Your task to perform on an android device: toggle notifications settings in the gmail app Image 0: 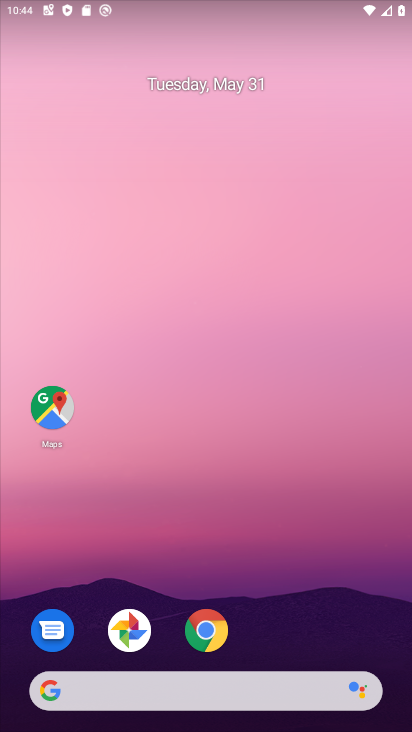
Step 0: drag from (280, 563) to (266, 245)
Your task to perform on an android device: toggle notifications settings in the gmail app Image 1: 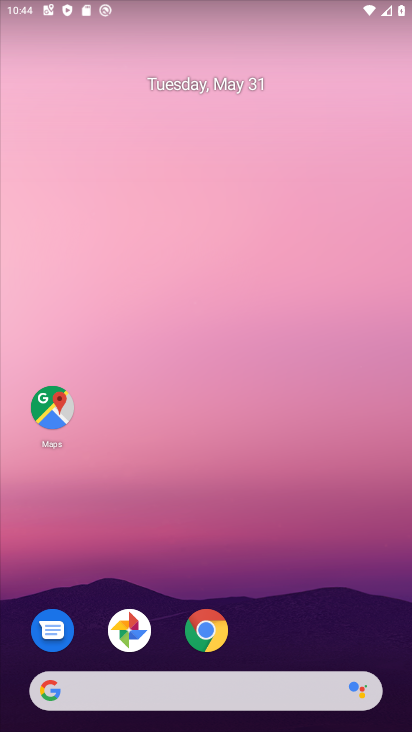
Step 1: drag from (250, 595) to (236, 196)
Your task to perform on an android device: toggle notifications settings in the gmail app Image 2: 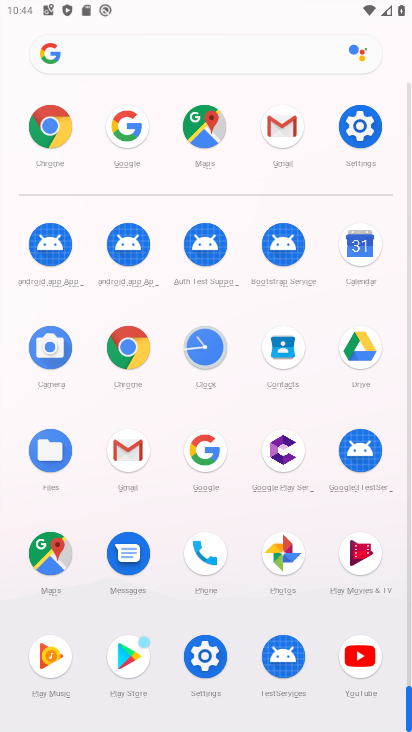
Step 2: click (121, 441)
Your task to perform on an android device: toggle notifications settings in the gmail app Image 3: 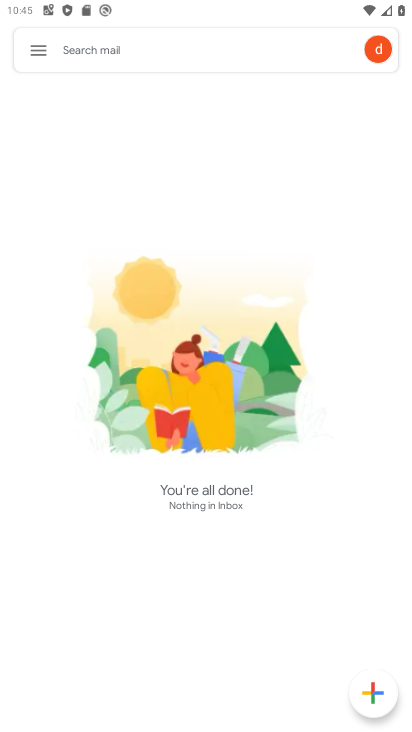
Step 3: click (32, 38)
Your task to perform on an android device: toggle notifications settings in the gmail app Image 4: 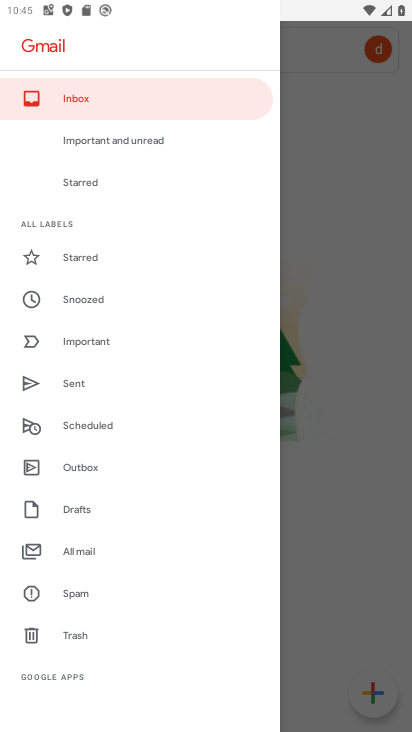
Step 4: drag from (95, 647) to (113, 289)
Your task to perform on an android device: toggle notifications settings in the gmail app Image 5: 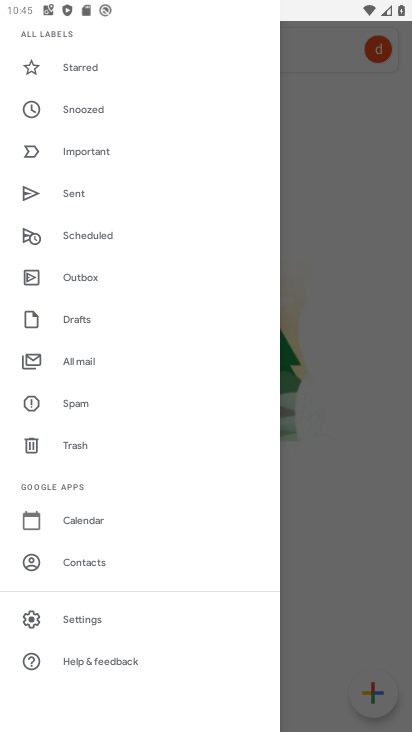
Step 5: click (88, 617)
Your task to perform on an android device: toggle notifications settings in the gmail app Image 6: 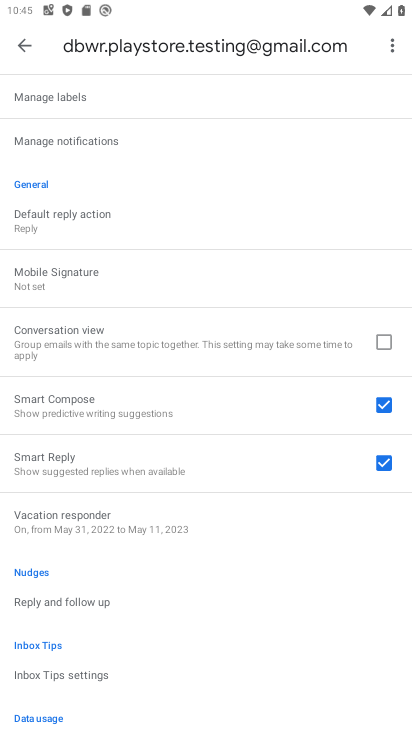
Step 6: drag from (144, 586) to (164, 360)
Your task to perform on an android device: toggle notifications settings in the gmail app Image 7: 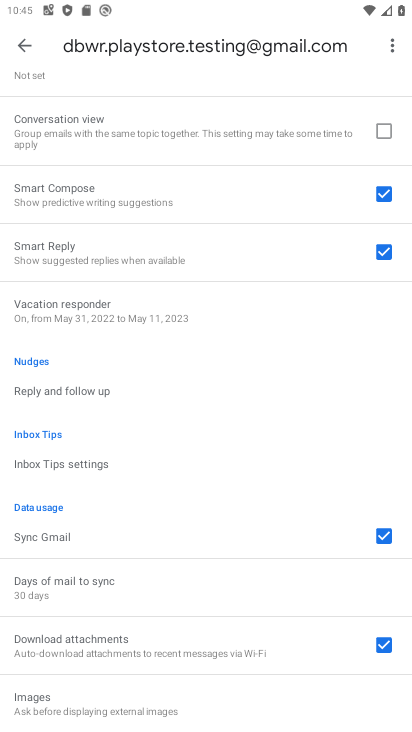
Step 7: drag from (146, 206) to (167, 593)
Your task to perform on an android device: toggle notifications settings in the gmail app Image 8: 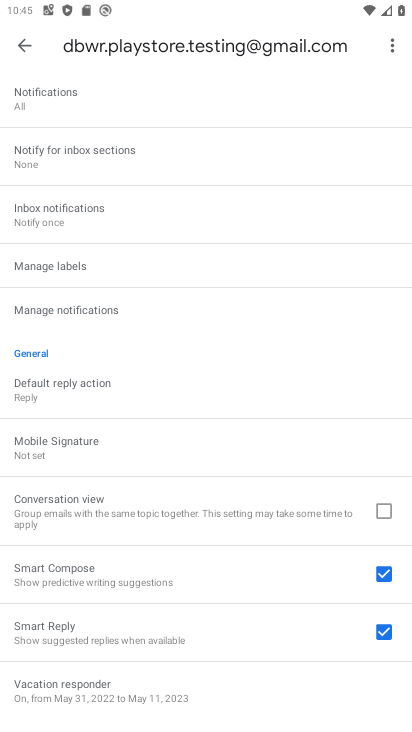
Step 8: click (88, 97)
Your task to perform on an android device: toggle notifications settings in the gmail app Image 9: 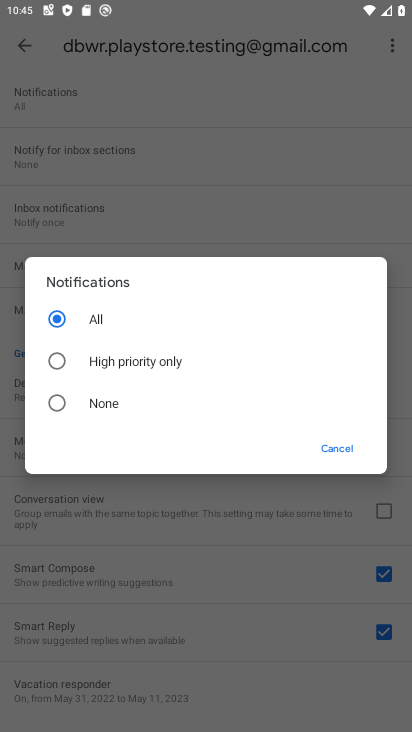
Step 9: click (76, 399)
Your task to perform on an android device: toggle notifications settings in the gmail app Image 10: 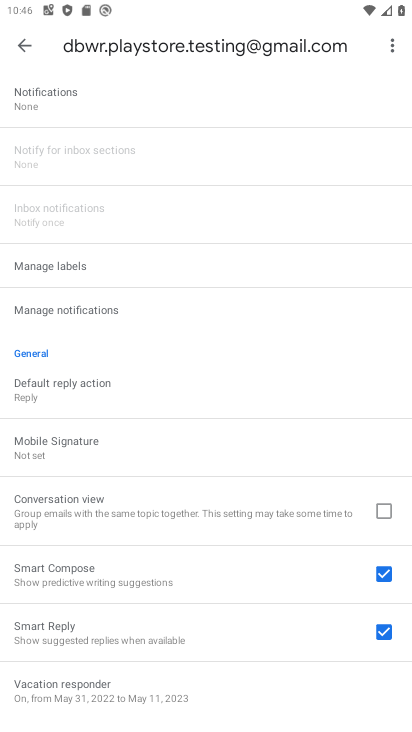
Step 10: task complete